Your task to perform on an android device: read, delete, or share a saved page in the chrome app Image 0: 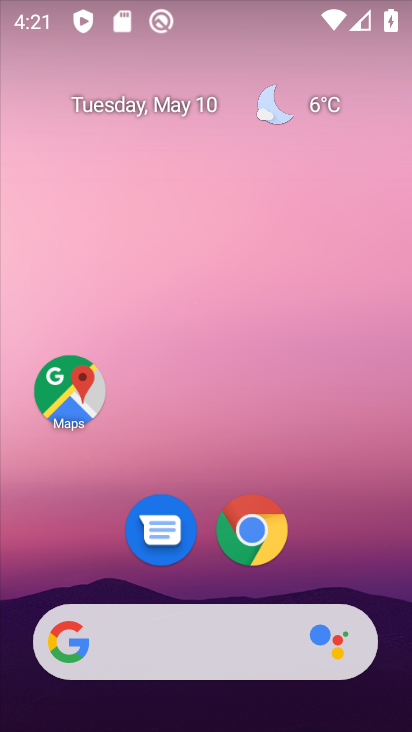
Step 0: click (256, 527)
Your task to perform on an android device: read, delete, or share a saved page in the chrome app Image 1: 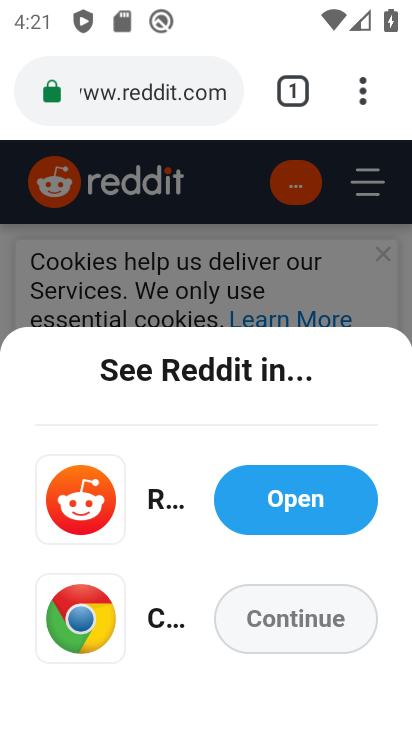
Step 1: click (366, 84)
Your task to perform on an android device: read, delete, or share a saved page in the chrome app Image 2: 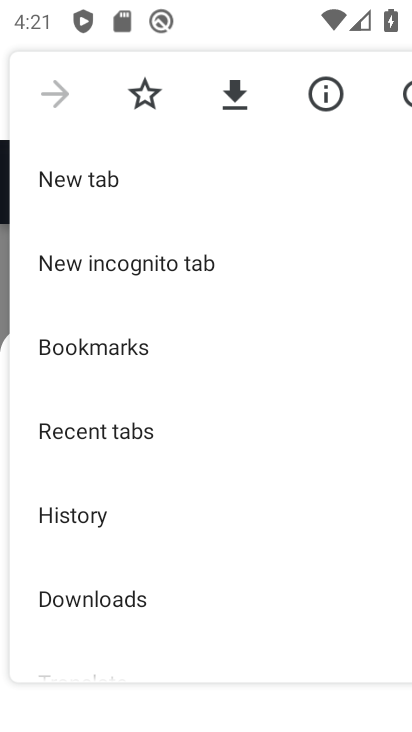
Step 2: click (131, 585)
Your task to perform on an android device: read, delete, or share a saved page in the chrome app Image 3: 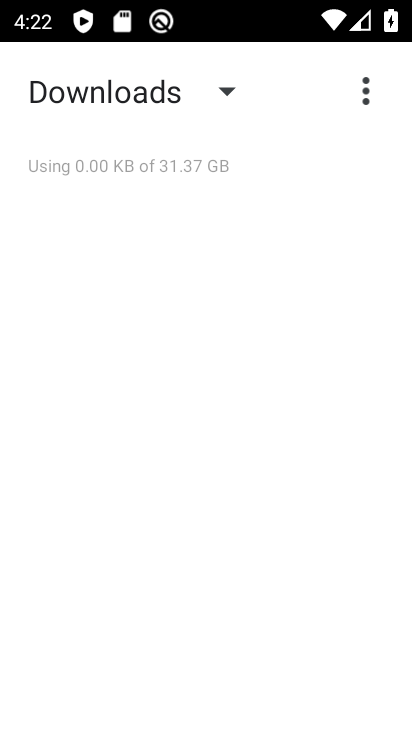
Step 3: task complete